Your task to perform on an android device: Go to Yahoo.com Image 0: 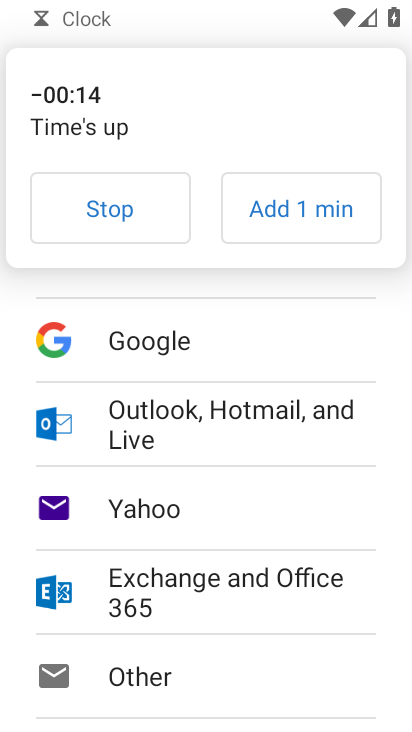
Step 0: press home button
Your task to perform on an android device: Go to Yahoo.com Image 1: 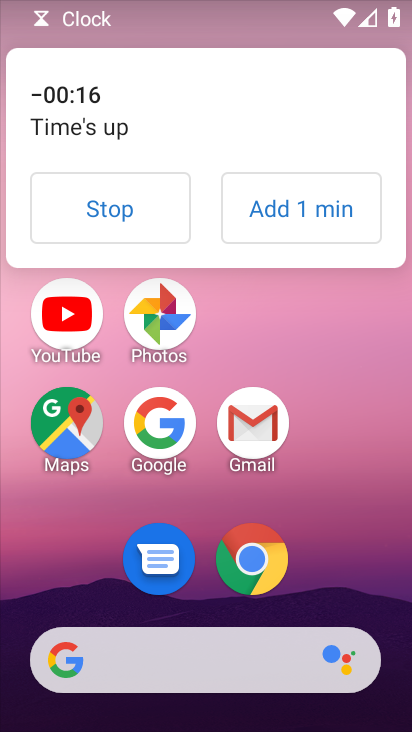
Step 1: click (71, 218)
Your task to perform on an android device: Go to Yahoo.com Image 2: 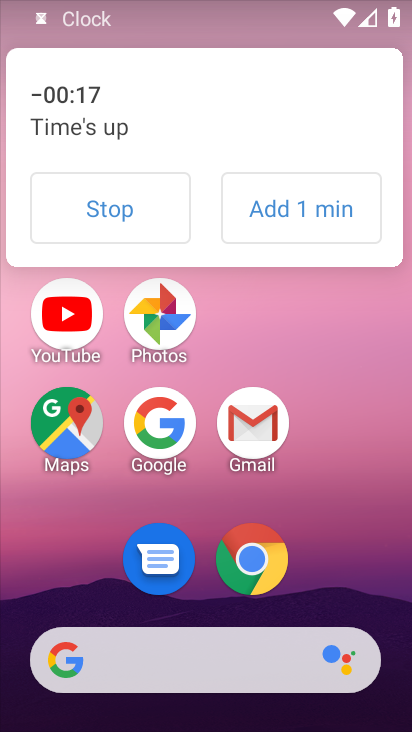
Step 2: click (252, 560)
Your task to perform on an android device: Go to Yahoo.com Image 3: 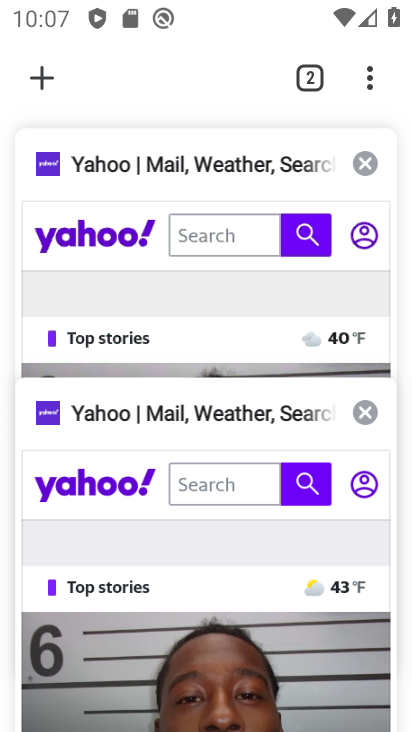
Step 3: click (181, 452)
Your task to perform on an android device: Go to Yahoo.com Image 4: 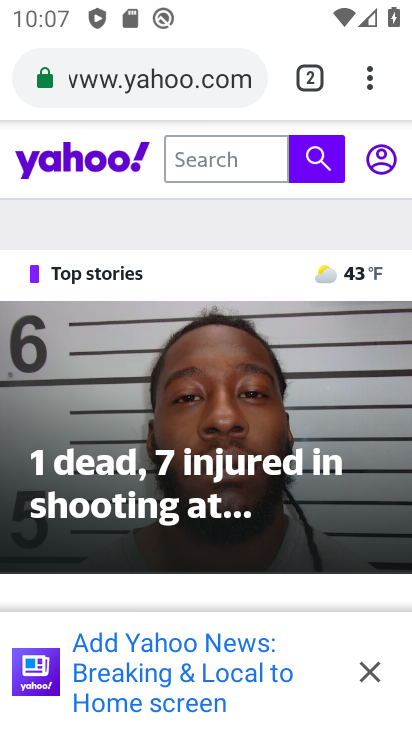
Step 4: task complete